Your task to perform on an android device: move an email to a new category in the gmail app Image 0: 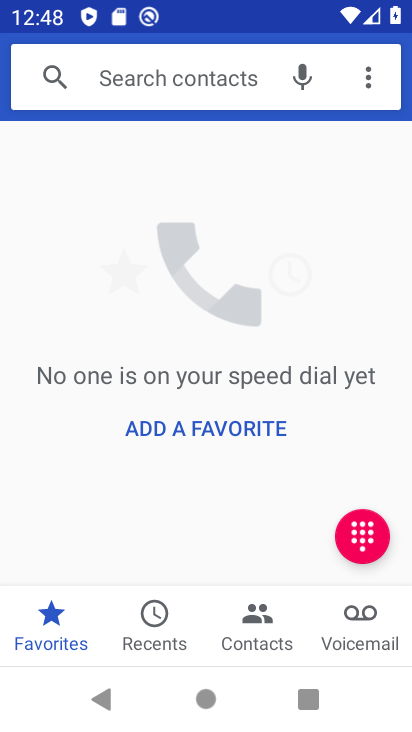
Step 0: press home button
Your task to perform on an android device: move an email to a new category in the gmail app Image 1: 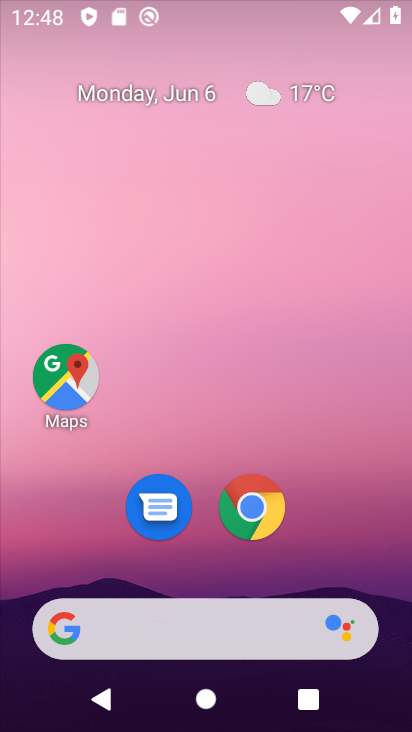
Step 1: drag from (203, 575) to (264, 124)
Your task to perform on an android device: move an email to a new category in the gmail app Image 2: 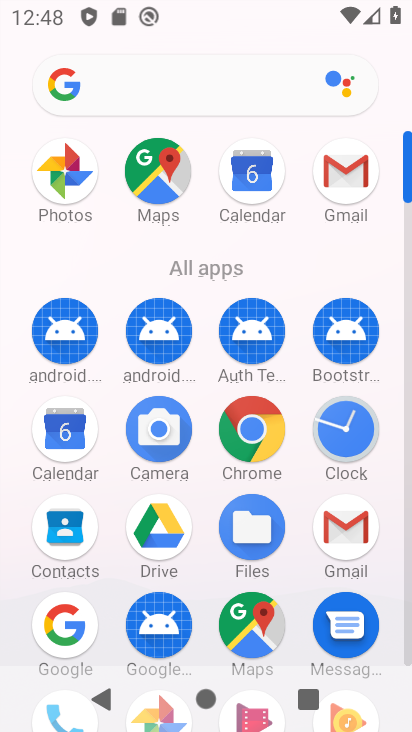
Step 2: click (353, 185)
Your task to perform on an android device: move an email to a new category in the gmail app Image 3: 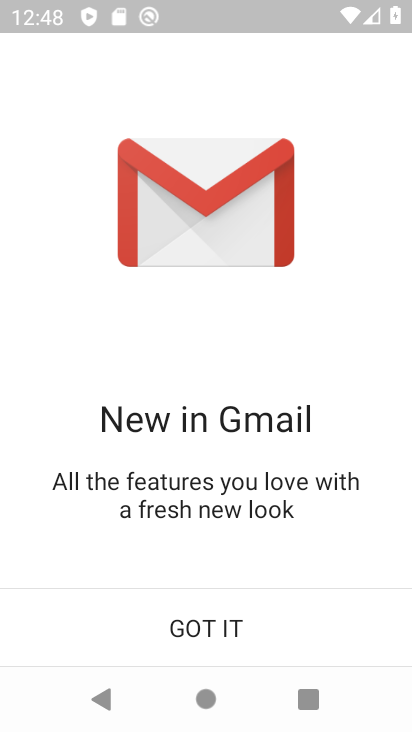
Step 3: click (197, 618)
Your task to perform on an android device: move an email to a new category in the gmail app Image 4: 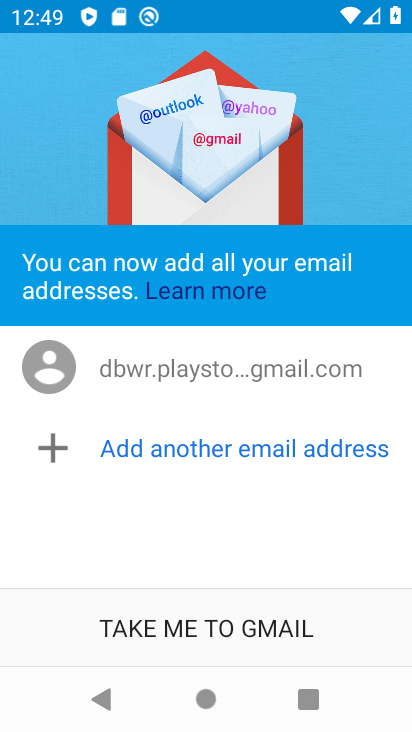
Step 4: click (173, 646)
Your task to perform on an android device: move an email to a new category in the gmail app Image 5: 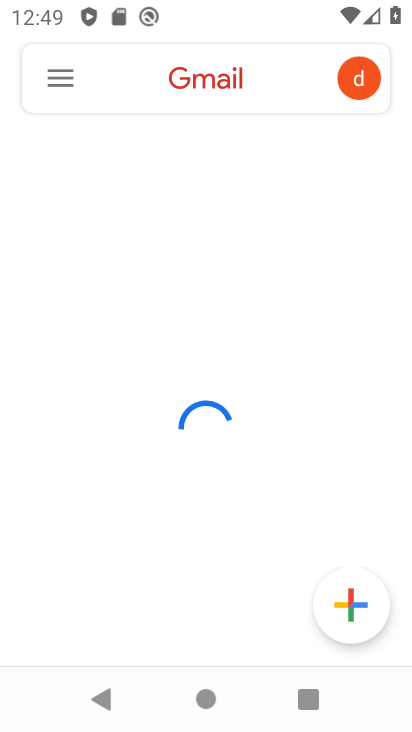
Step 5: click (57, 80)
Your task to perform on an android device: move an email to a new category in the gmail app Image 6: 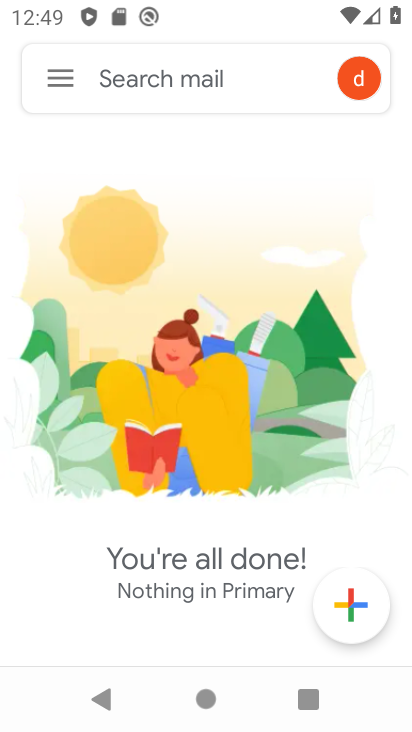
Step 6: click (45, 83)
Your task to perform on an android device: move an email to a new category in the gmail app Image 7: 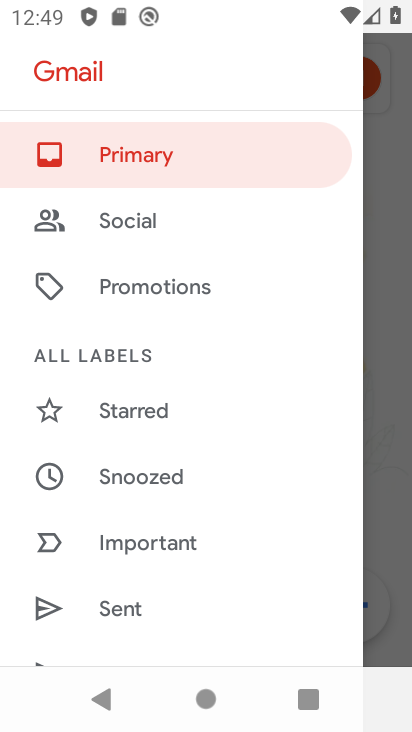
Step 7: task complete